Your task to perform on an android device: Open the calendar and show me this week's events? Image 0: 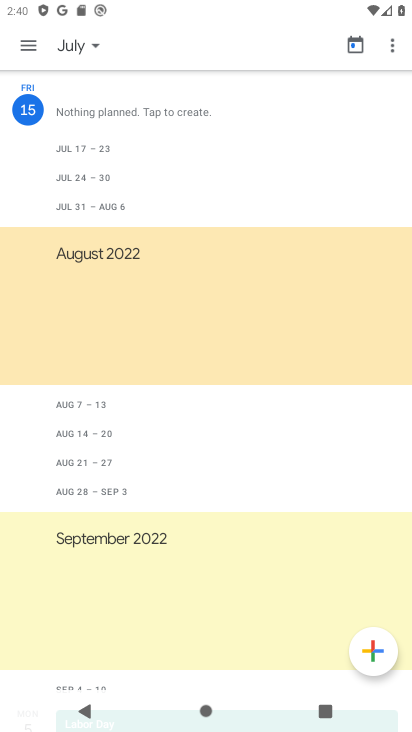
Step 0: click (313, 511)
Your task to perform on an android device: Open the calendar and show me this week's events? Image 1: 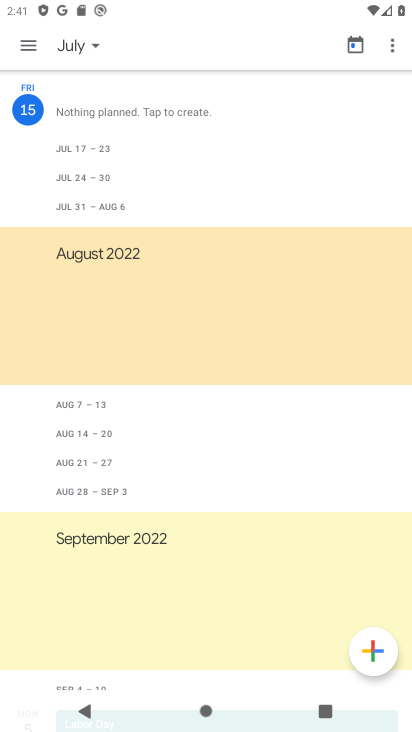
Step 1: task complete